Your task to perform on an android device: toggle wifi Image 0: 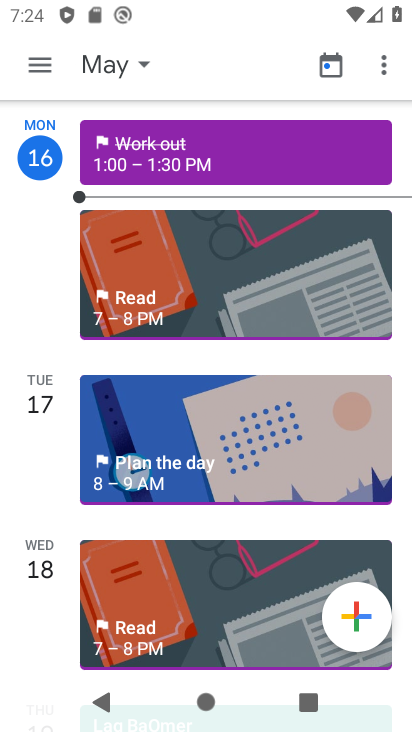
Step 0: press home button
Your task to perform on an android device: toggle wifi Image 1: 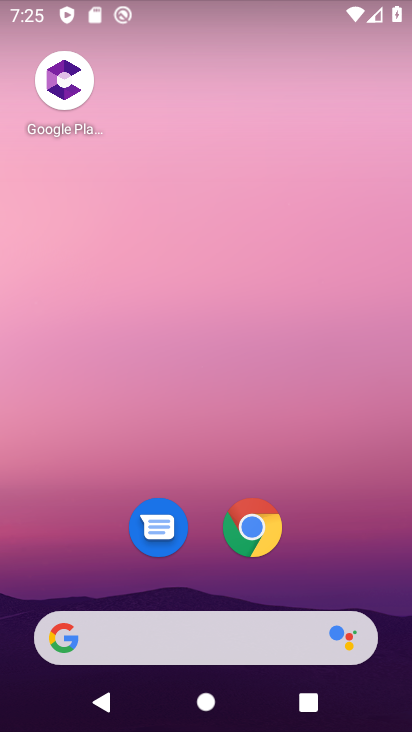
Step 1: drag from (289, 457) to (305, 173)
Your task to perform on an android device: toggle wifi Image 2: 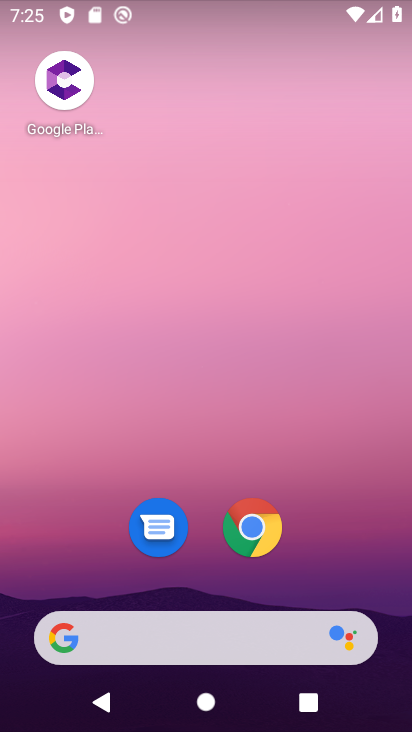
Step 2: drag from (329, 584) to (330, 35)
Your task to perform on an android device: toggle wifi Image 3: 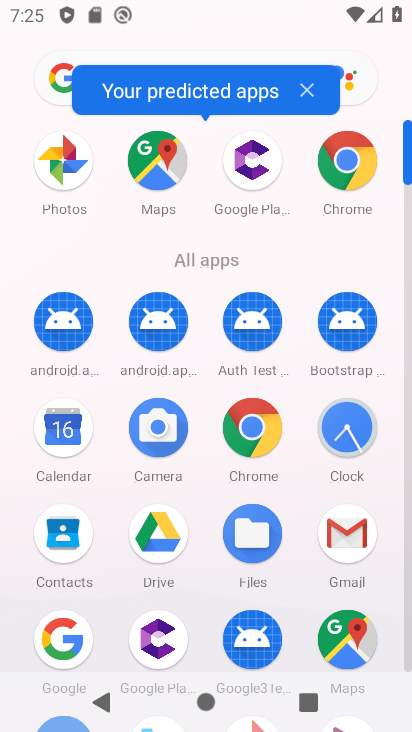
Step 3: drag from (205, 479) to (259, 98)
Your task to perform on an android device: toggle wifi Image 4: 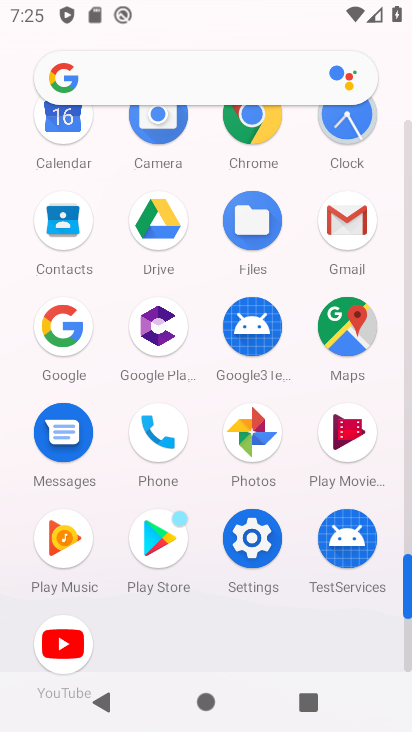
Step 4: drag from (269, 534) to (106, 199)
Your task to perform on an android device: toggle wifi Image 5: 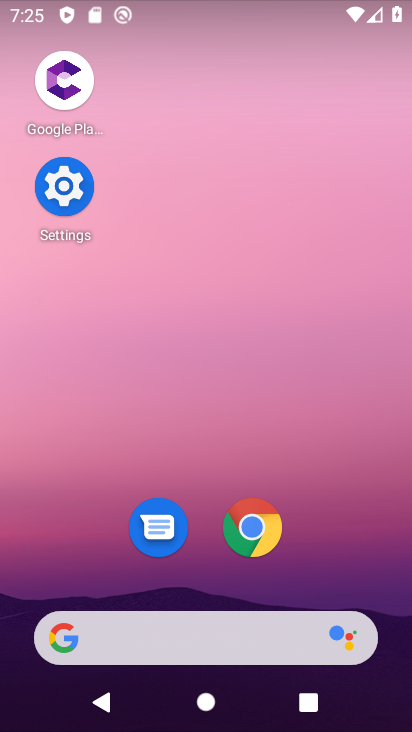
Step 5: click (76, 179)
Your task to perform on an android device: toggle wifi Image 6: 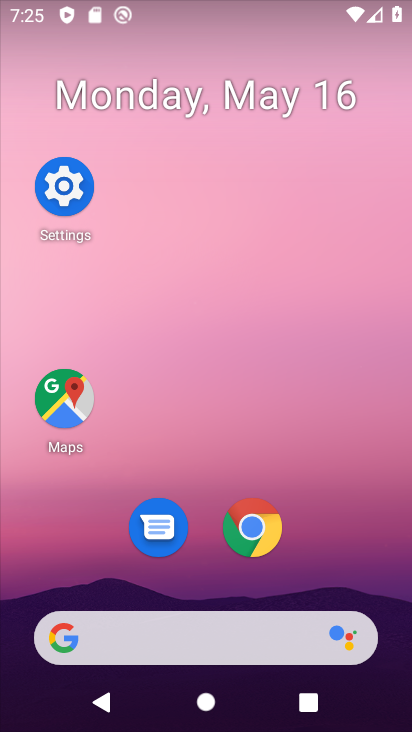
Step 6: click (73, 182)
Your task to perform on an android device: toggle wifi Image 7: 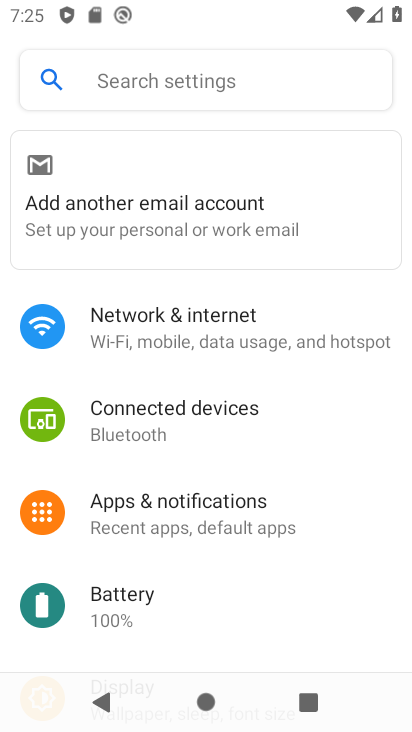
Step 7: click (148, 334)
Your task to perform on an android device: toggle wifi Image 8: 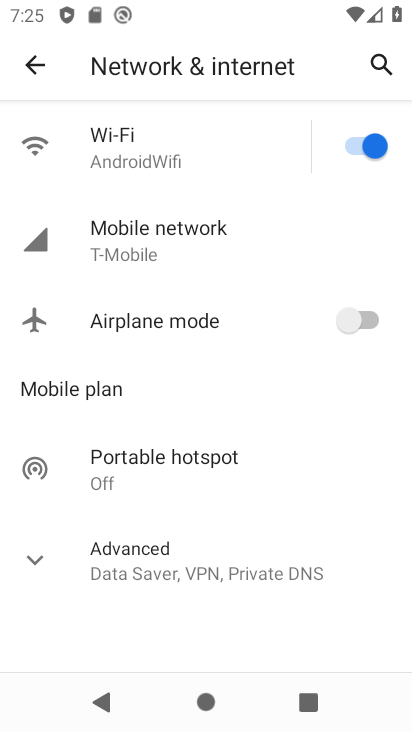
Step 8: click (378, 142)
Your task to perform on an android device: toggle wifi Image 9: 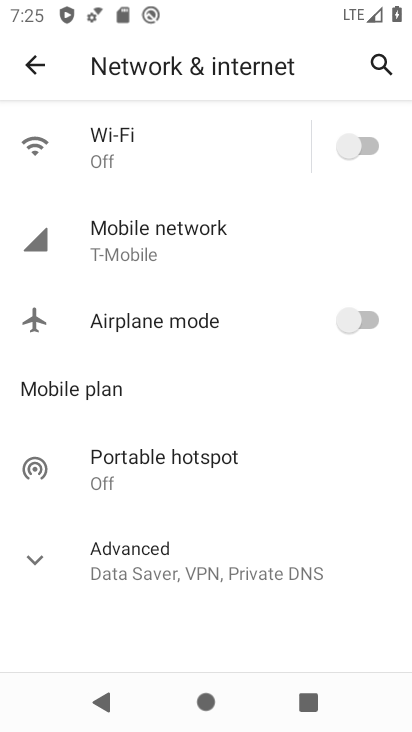
Step 9: task complete